Your task to perform on an android device: View the shopping cart on newegg.com. Search for "sony triple a" on newegg.com, select the first entry, and add it to the cart. Image 0: 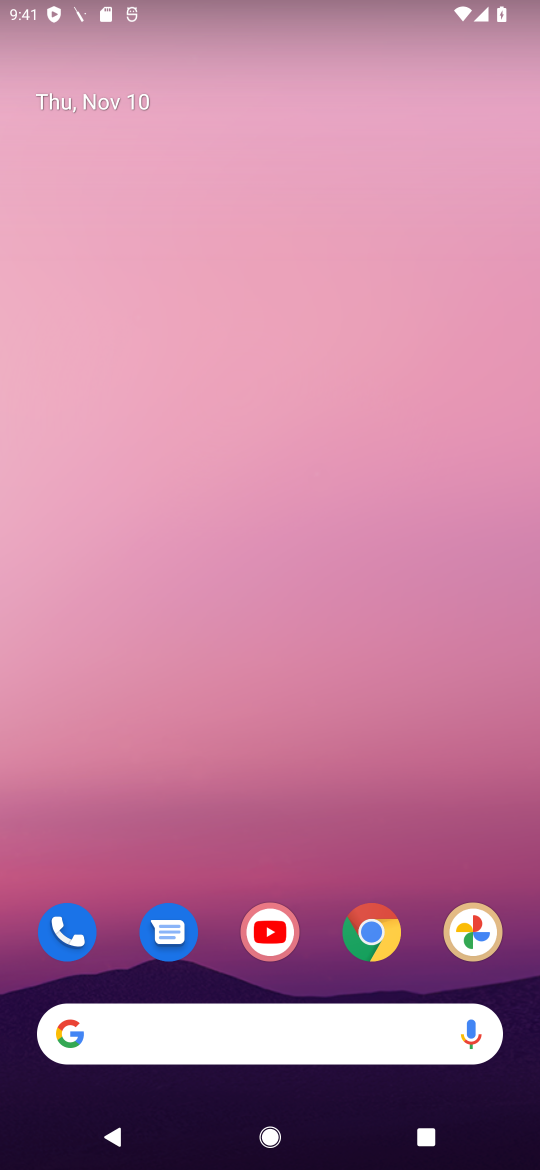
Step 0: click (375, 935)
Your task to perform on an android device: View the shopping cart on newegg.com. Search for "sony triple a" on newegg.com, select the first entry, and add it to the cart. Image 1: 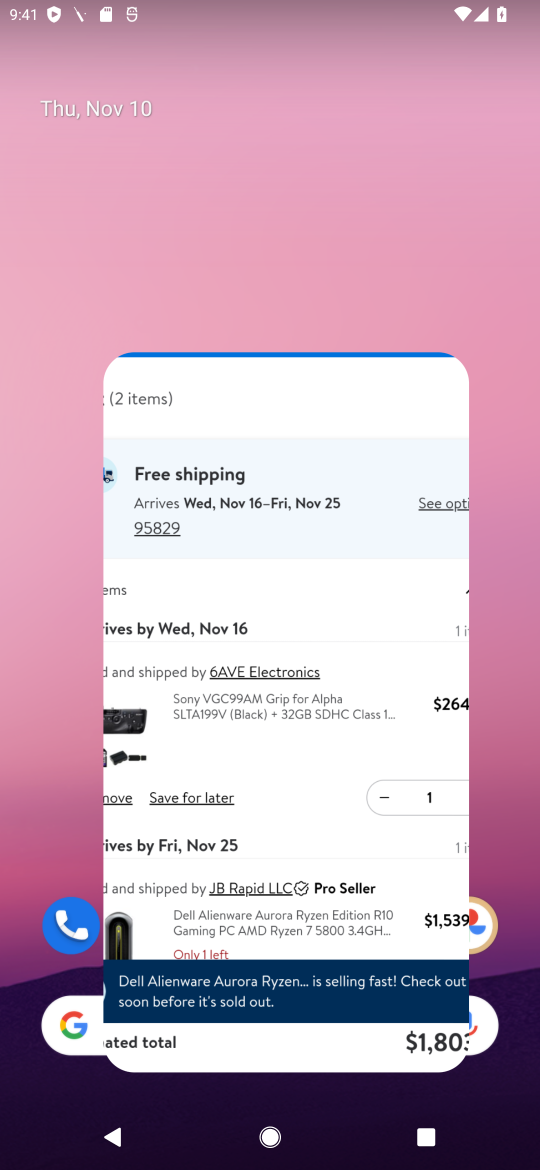
Step 1: click (375, 935)
Your task to perform on an android device: View the shopping cart on newegg.com. Search for "sony triple a" on newegg.com, select the first entry, and add it to the cart. Image 2: 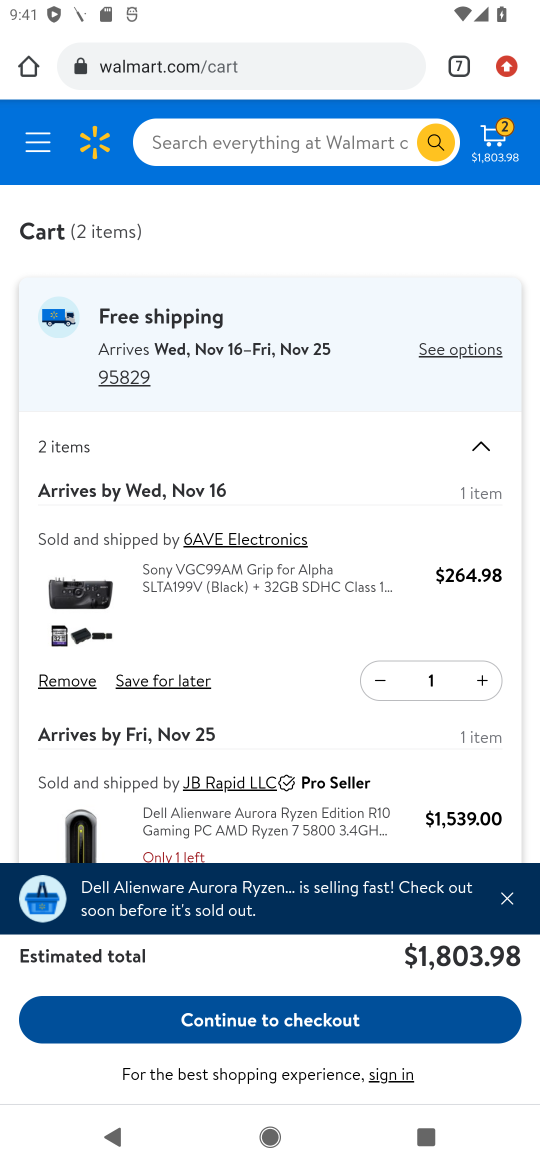
Step 2: click (452, 74)
Your task to perform on an android device: View the shopping cart on newegg.com. Search for "sony triple a" on newegg.com, select the first entry, and add it to the cart. Image 3: 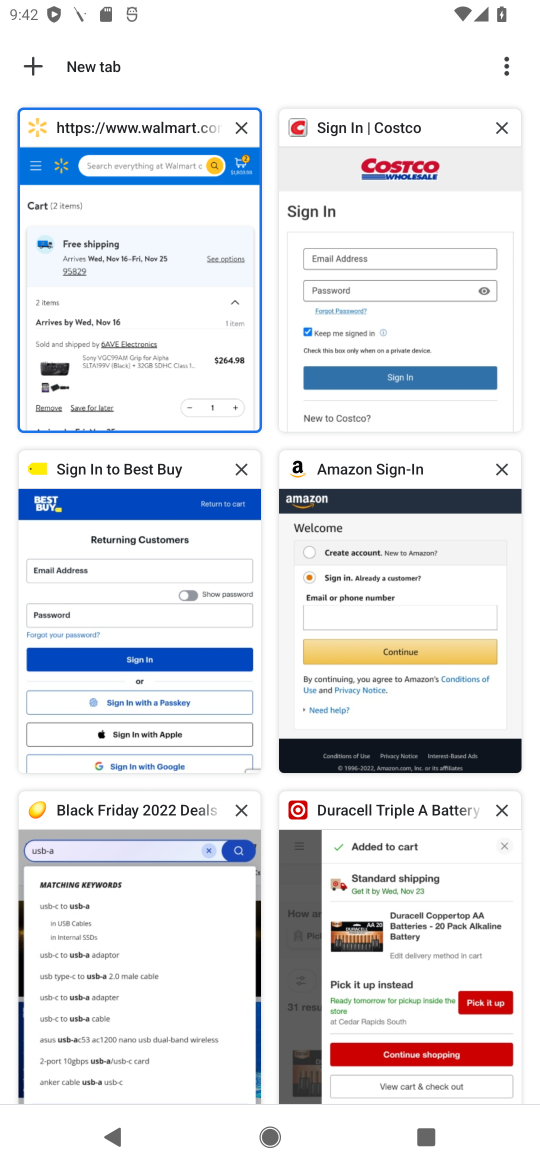
Step 3: click (31, 70)
Your task to perform on an android device: View the shopping cart on newegg.com. Search for "sony triple a" on newegg.com, select the first entry, and add it to the cart. Image 4: 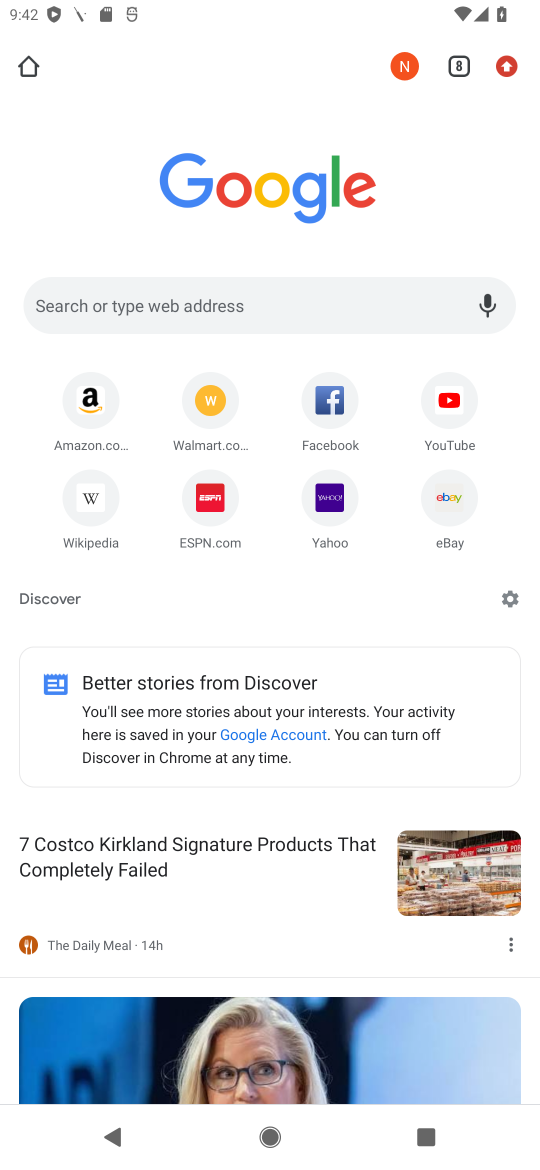
Step 4: click (184, 307)
Your task to perform on an android device: View the shopping cart on newegg.com. Search for "sony triple a" on newegg.com, select the first entry, and add it to the cart. Image 5: 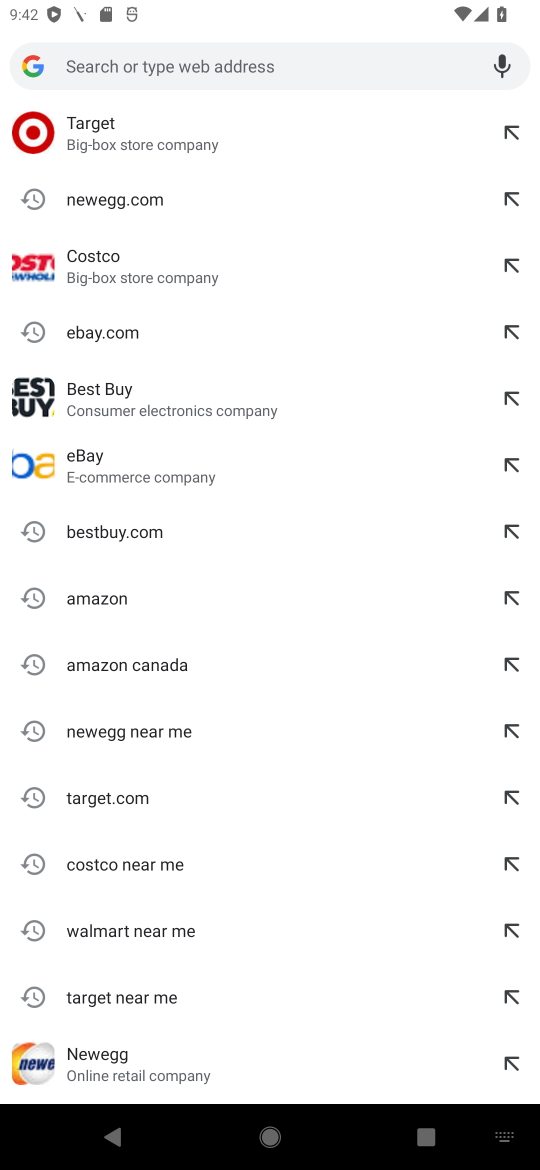
Step 5: click (117, 1057)
Your task to perform on an android device: View the shopping cart on newegg.com. Search for "sony triple a" on newegg.com, select the first entry, and add it to the cart. Image 6: 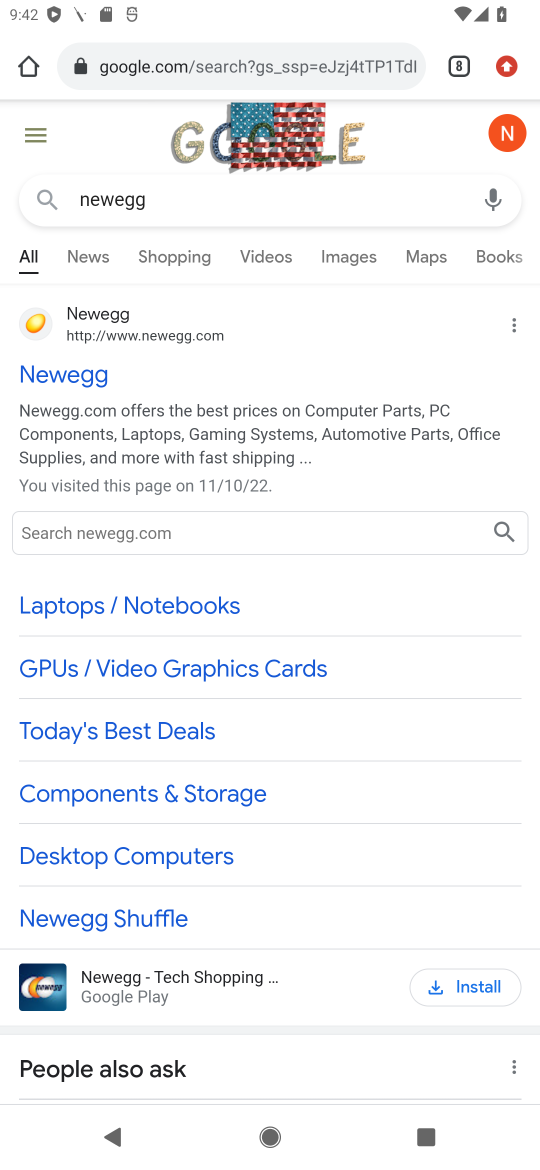
Step 6: click (201, 536)
Your task to perform on an android device: View the shopping cart on newegg.com. Search for "sony triple a" on newegg.com, select the first entry, and add it to the cart. Image 7: 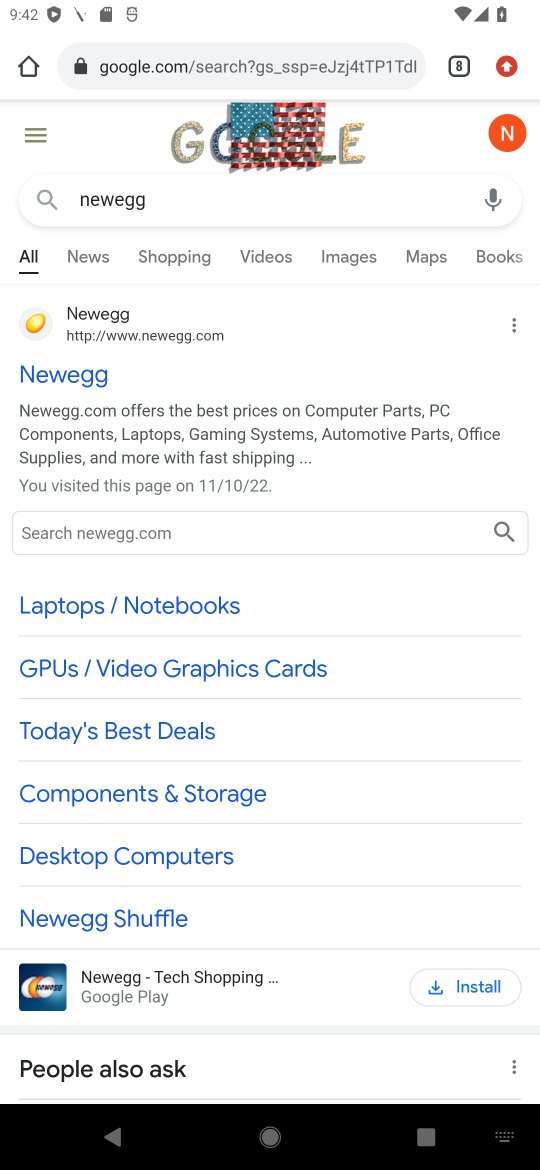
Step 7: type "sony triple a battery"
Your task to perform on an android device: View the shopping cart on newegg.com. Search for "sony triple a" on newegg.com, select the first entry, and add it to the cart. Image 8: 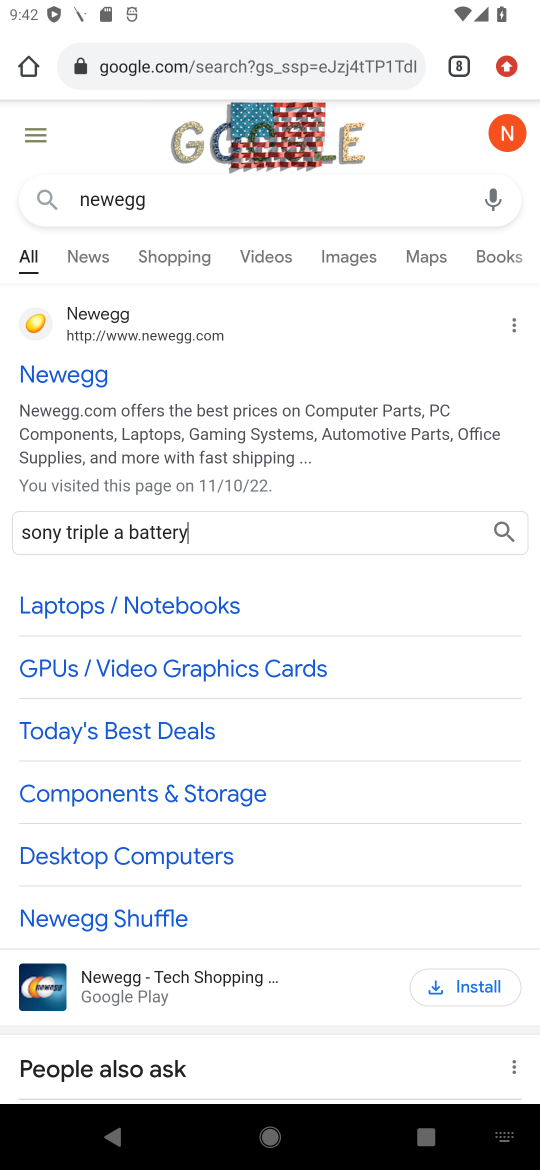
Step 8: click (501, 531)
Your task to perform on an android device: View the shopping cart on newegg.com. Search for "sony triple a" on newegg.com, select the first entry, and add it to the cart. Image 9: 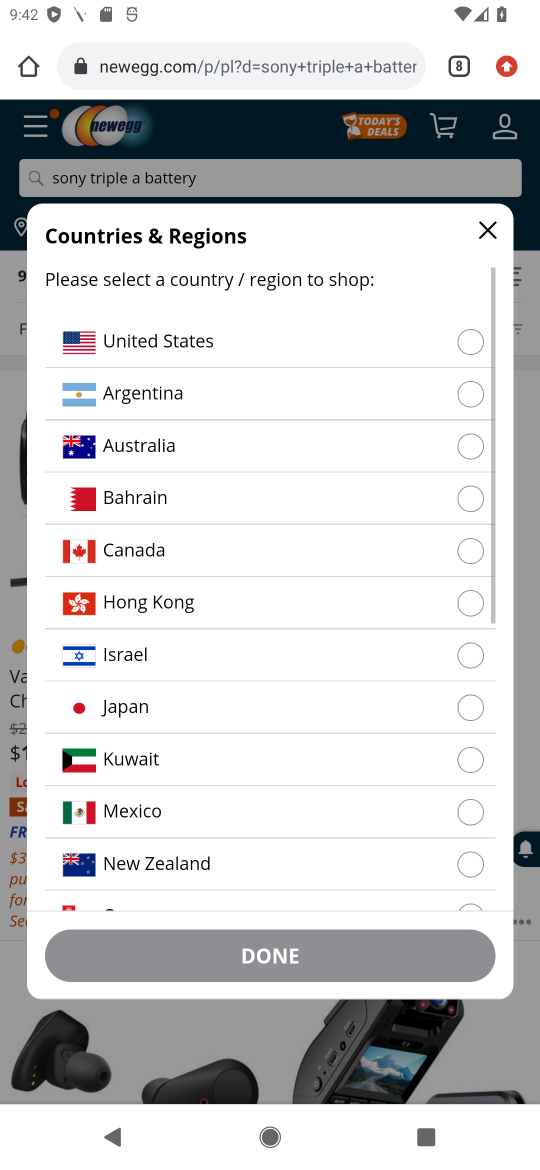
Step 9: click (473, 348)
Your task to perform on an android device: View the shopping cart on newegg.com. Search for "sony triple a" on newegg.com, select the first entry, and add it to the cart. Image 10: 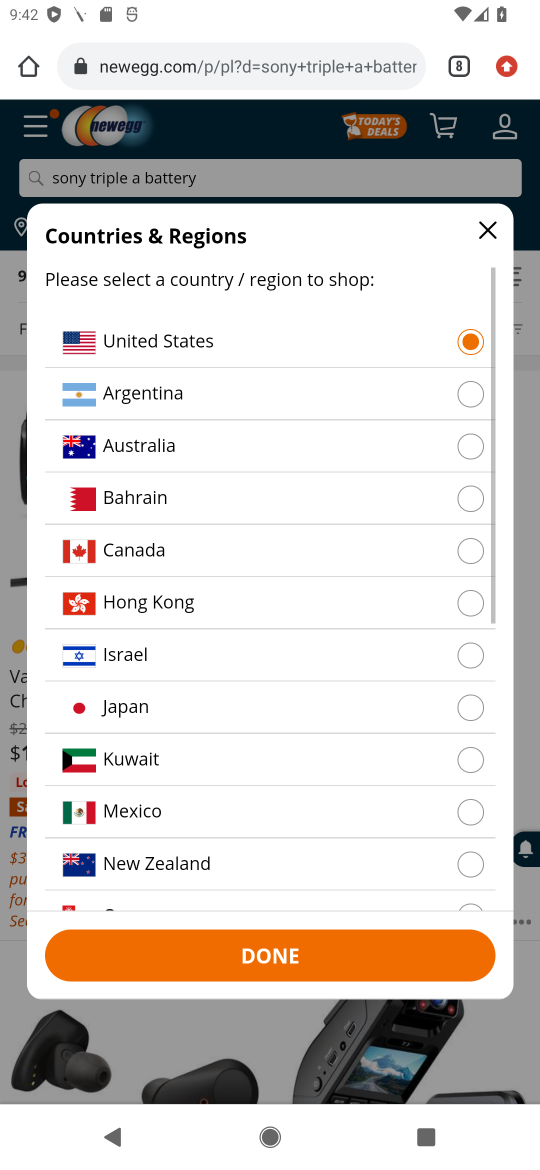
Step 10: click (289, 961)
Your task to perform on an android device: View the shopping cart on newegg.com. Search for "sony triple a" on newegg.com, select the first entry, and add it to the cart. Image 11: 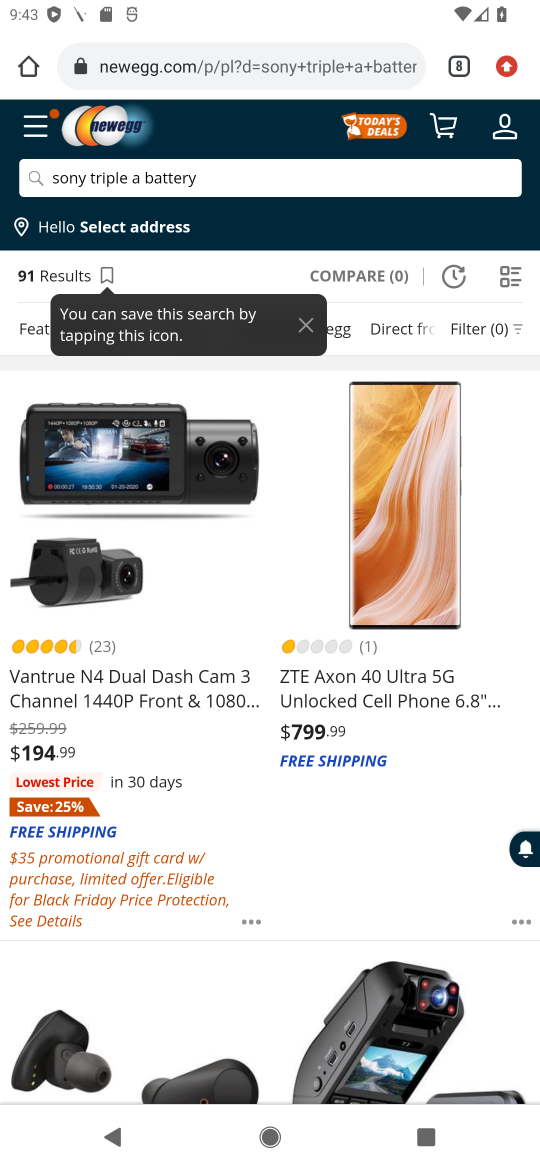
Step 11: task complete